Your task to perform on an android device: toggle show notifications on the lock screen Image 0: 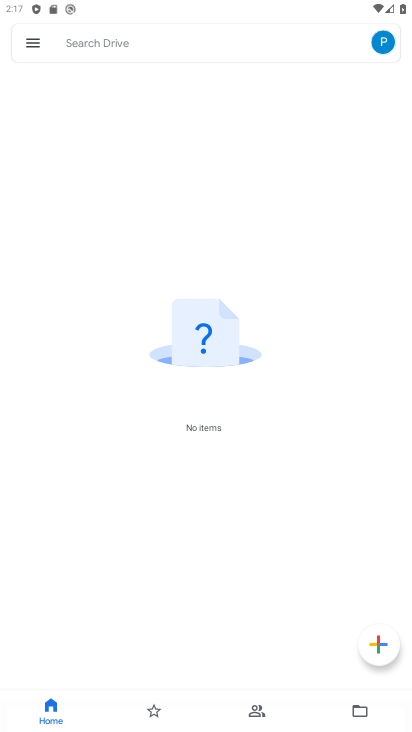
Step 0: press home button
Your task to perform on an android device: toggle show notifications on the lock screen Image 1: 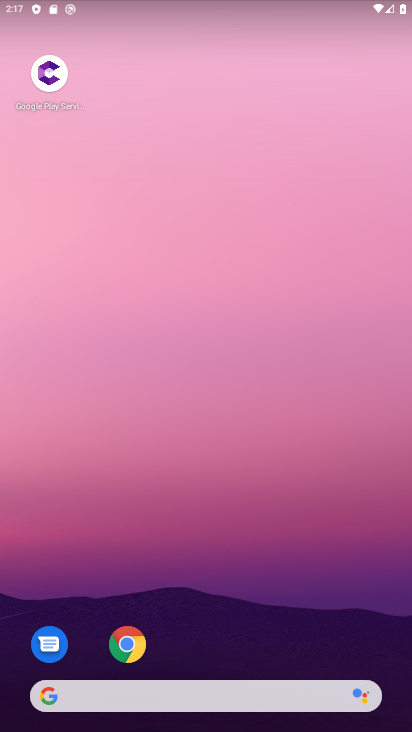
Step 1: drag from (272, 630) to (271, 84)
Your task to perform on an android device: toggle show notifications on the lock screen Image 2: 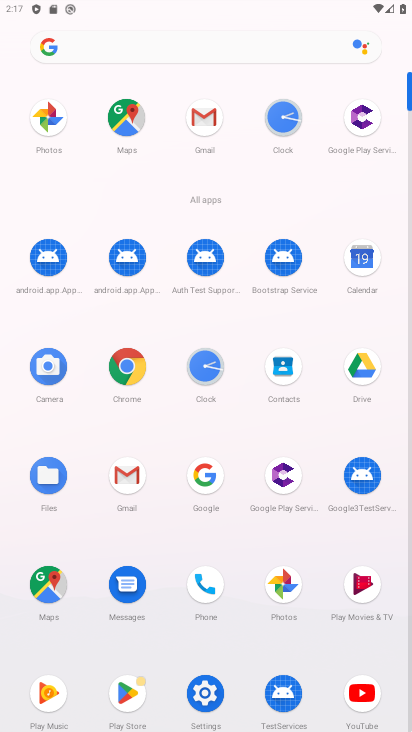
Step 2: click (207, 679)
Your task to perform on an android device: toggle show notifications on the lock screen Image 3: 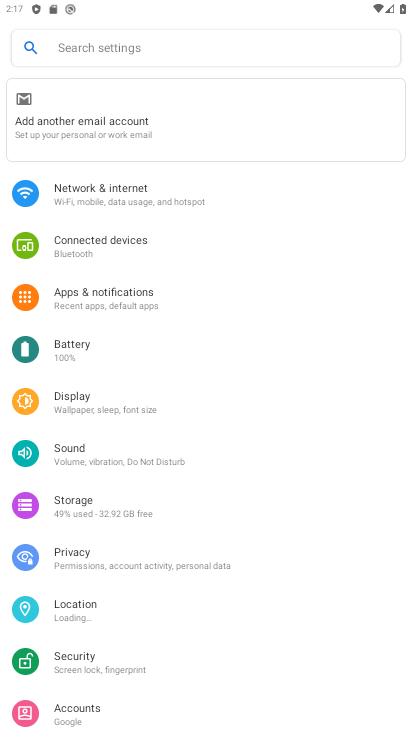
Step 3: click (108, 290)
Your task to perform on an android device: toggle show notifications on the lock screen Image 4: 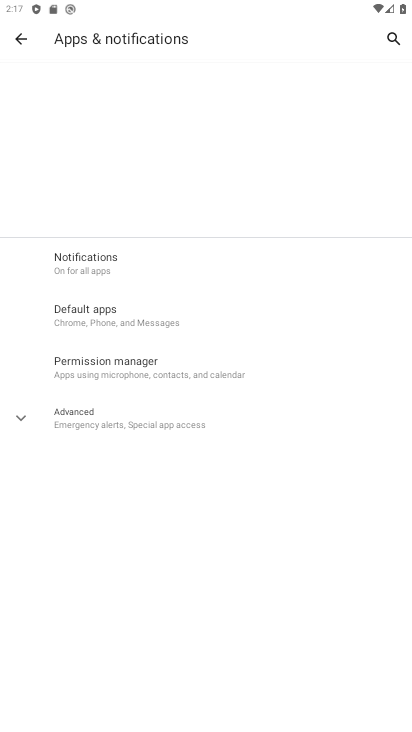
Step 4: click (126, 254)
Your task to perform on an android device: toggle show notifications on the lock screen Image 5: 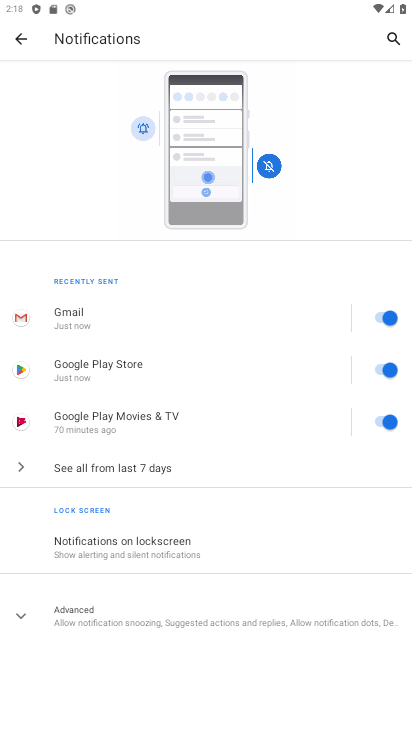
Step 5: click (127, 556)
Your task to perform on an android device: toggle show notifications on the lock screen Image 6: 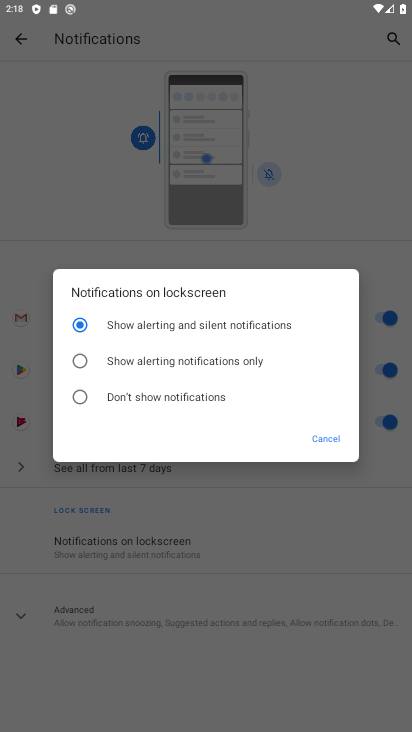
Step 6: click (207, 363)
Your task to perform on an android device: toggle show notifications on the lock screen Image 7: 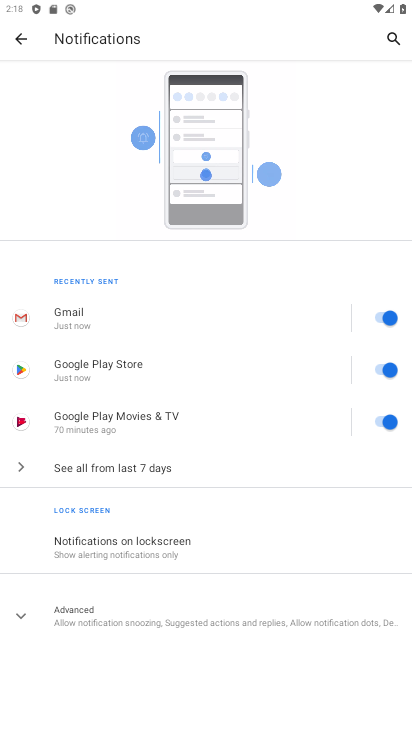
Step 7: task complete